Your task to perform on an android device: change notifications settings Image 0: 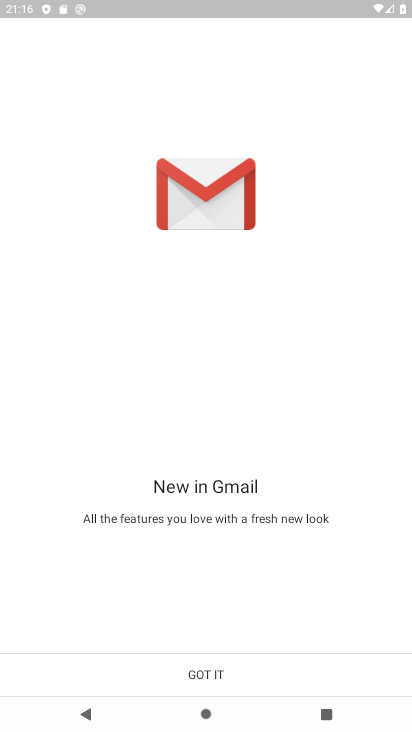
Step 0: press home button
Your task to perform on an android device: change notifications settings Image 1: 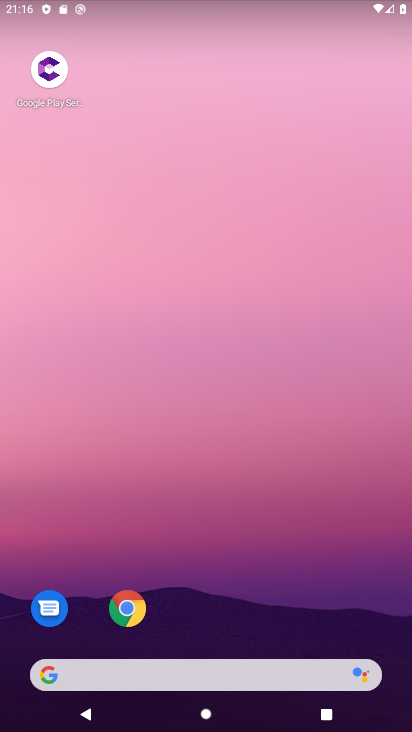
Step 1: drag from (199, 410) to (204, 58)
Your task to perform on an android device: change notifications settings Image 2: 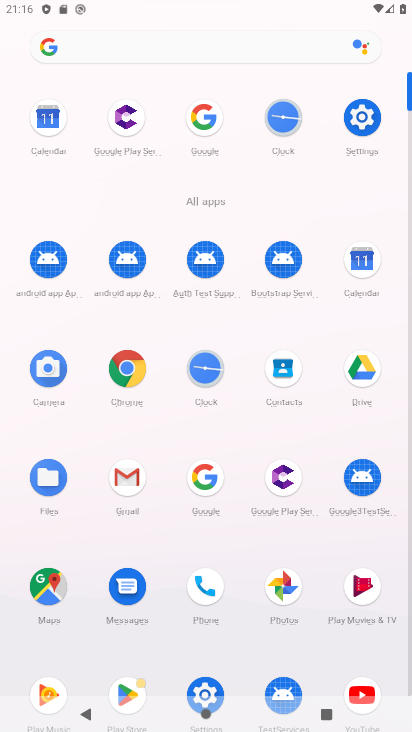
Step 2: click (364, 123)
Your task to perform on an android device: change notifications settings Image 3: 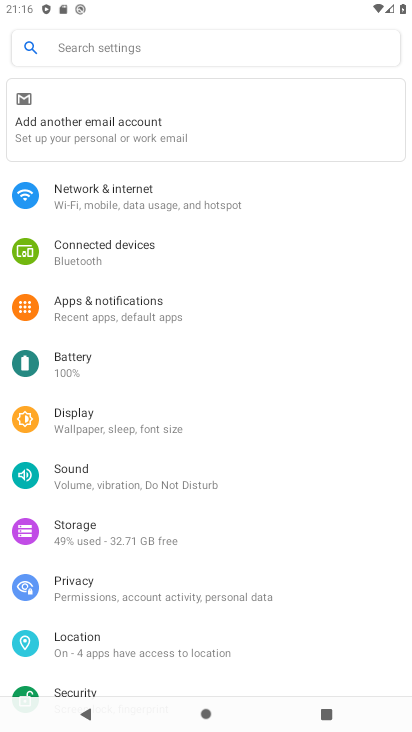
Step 3: click (77, 324)
Your task to perform on an android device: change notifications settings Image 4: 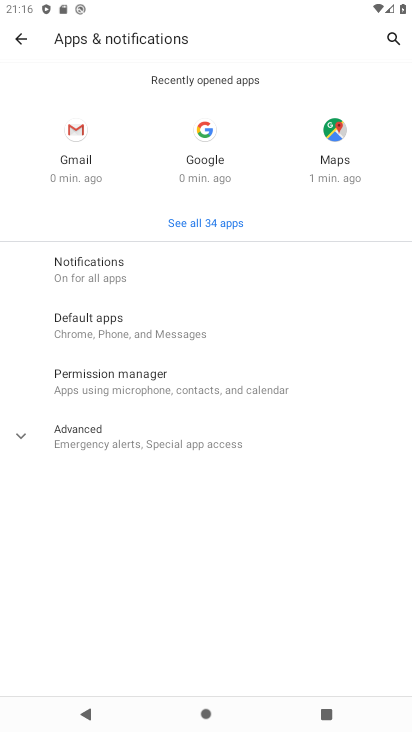
Step 4: click (107, 269)
Your task to perform on an android device: change notifications settings Image 5: 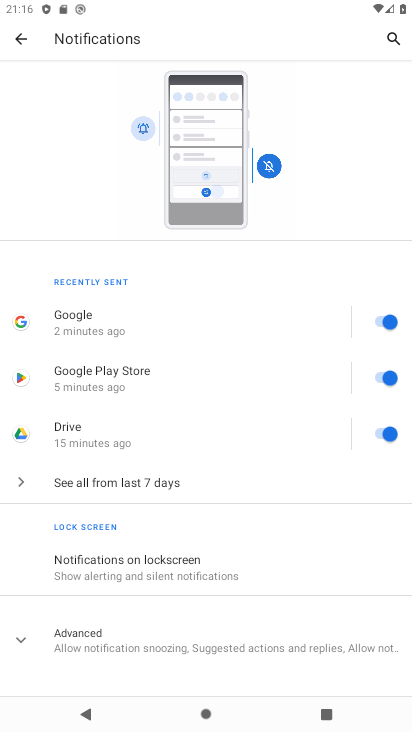
Step 5: task complete